Your task to perform on an android device: open app "PUBG MOBILE" Image 0: 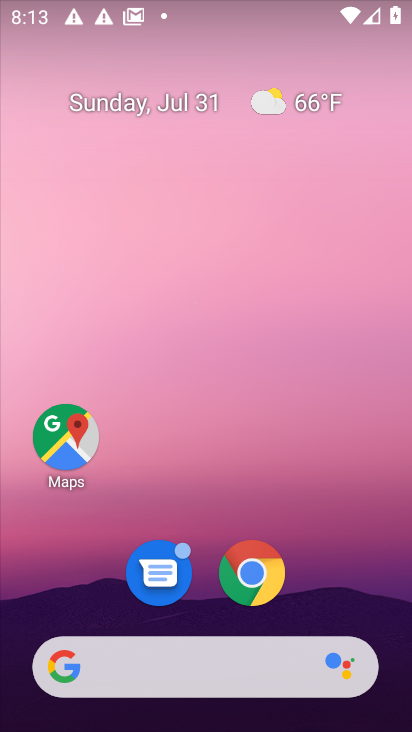
Step 0: drag from (196, 610) to (36, 4)
Your task to perform on an android device: open app "PUBG MOBILE" Image 1: 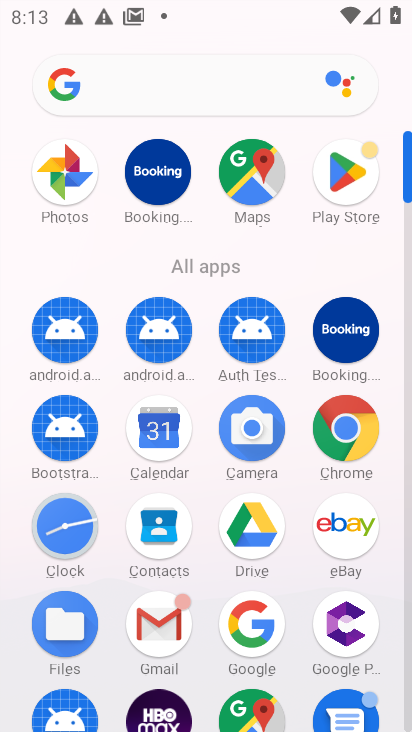
Step 1: click (352, 178)
Your task to perform on an android device: open app "PUBG MOBILE" Image 2: 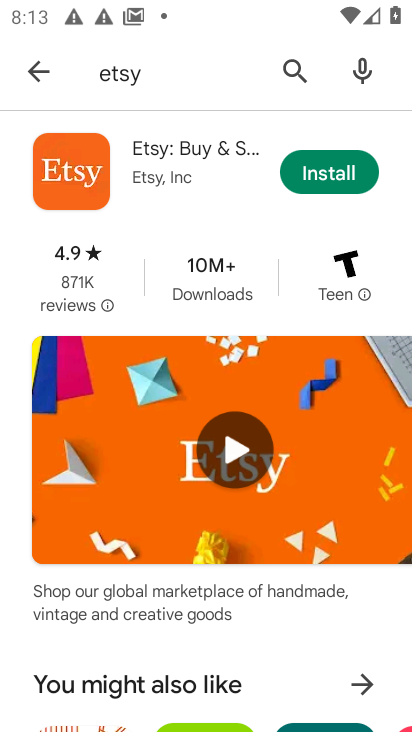
Step 2: click (180, 76)
Your task to perform on an android device: open app "PUBG MOBILE" Image 3: 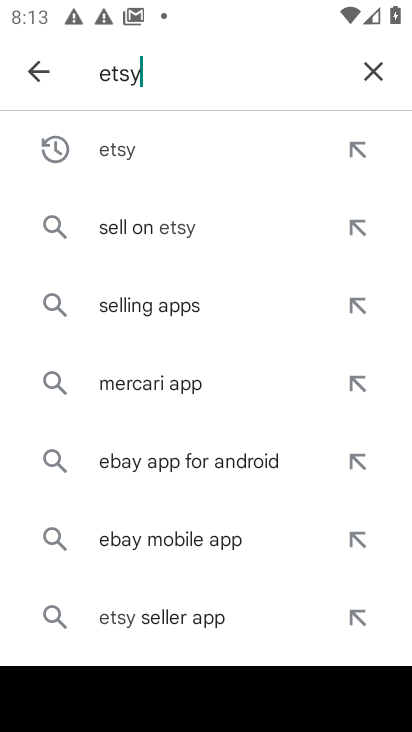
Step 3: click (374, 71)
Your task to perform on an android device: open app "PUBG MOBILE" Image 4: 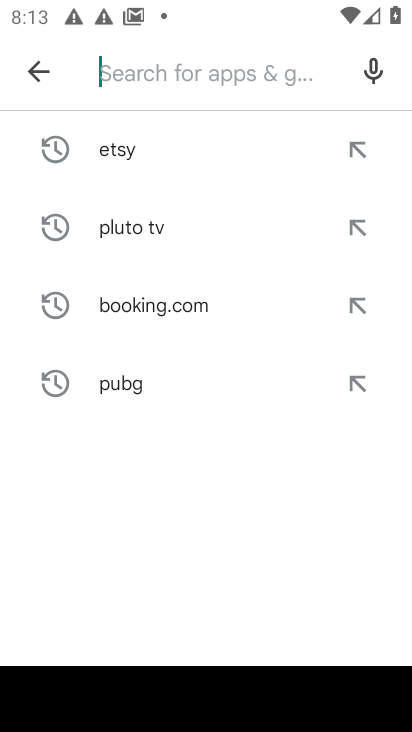
Step 4: type "Pubg mobile"
Your task to perform on an android device: open app "PUBG MOBILE" Image 5: 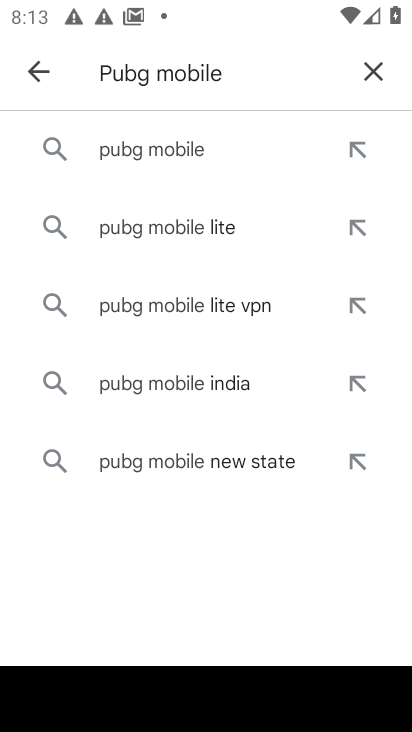
Step 5: click (165, 152)
Your task to perform on an android device: open app "PUBG MOBILE" Image 6: 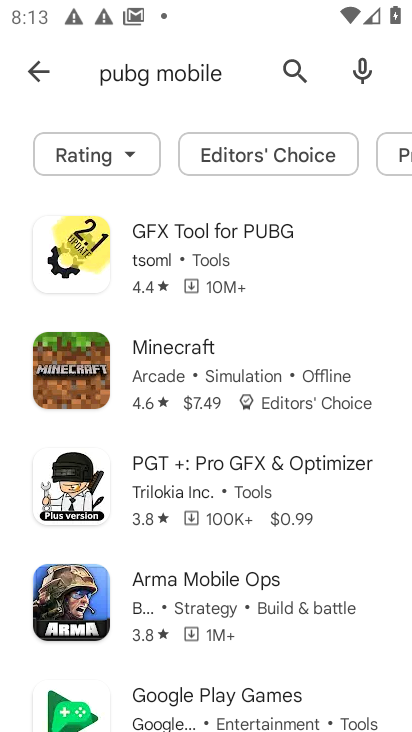
Step 6: task complete